Your task to perform on an android device: Open display settings Image 0: 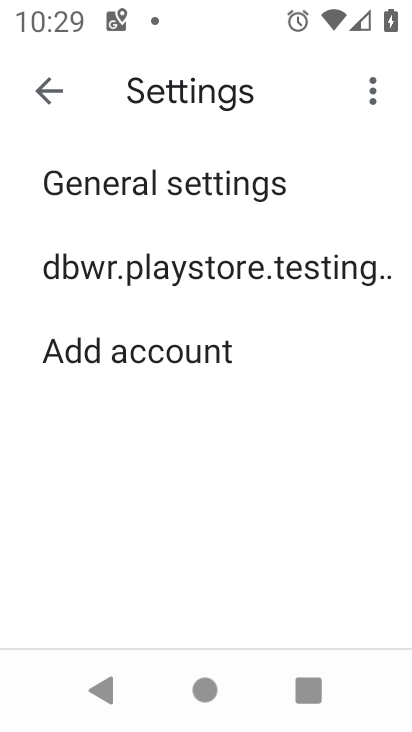
Step 0: press home button
Your task to perform on an android device: Open display settings Image 1: 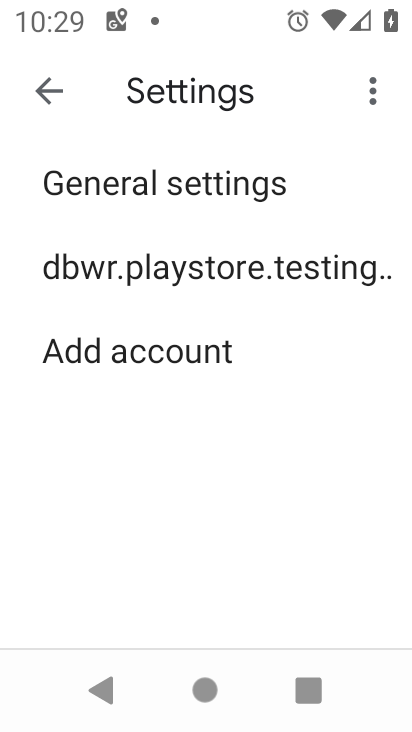
Step 1: press home button
Your task to perform on an android device: Open display settings Image 2: 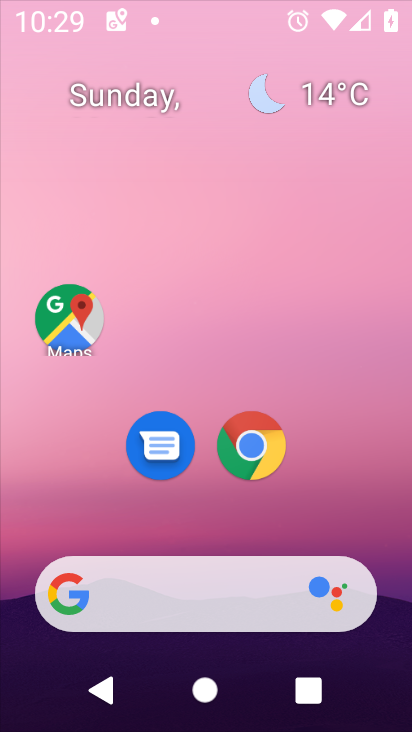
Step 2: drag from (187, 546) to (206, 2)
Your task to perform on an android device: Open display settings Image 3: 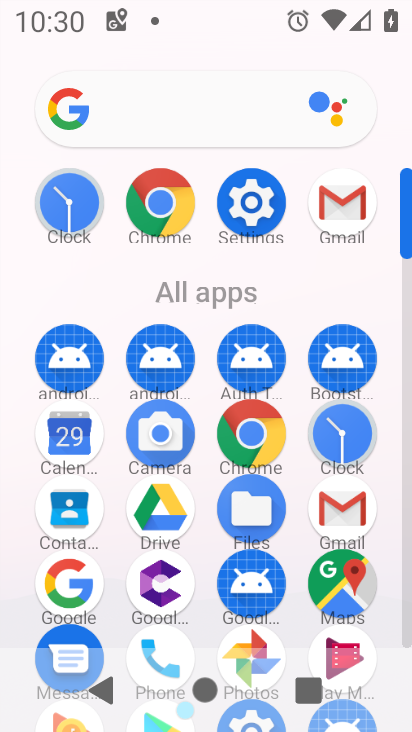
Step 3: click (264, 174)
Your task to perform on an android device: Open display settings Image 4: 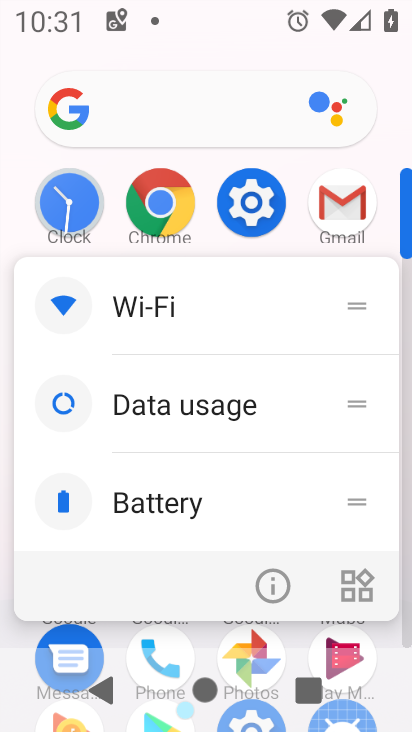
Step 4: click (277, 593)
Your task to perform on an android device: Open display settings Image 5: 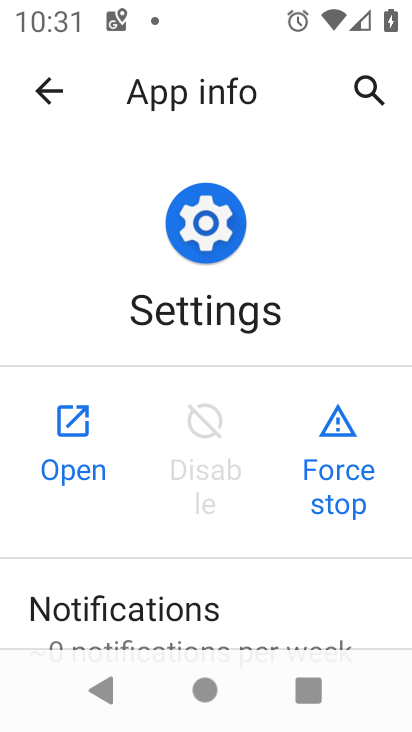
Step 5: click (70, 446)
Your task to perform on an android device: Open display settings Image 6: 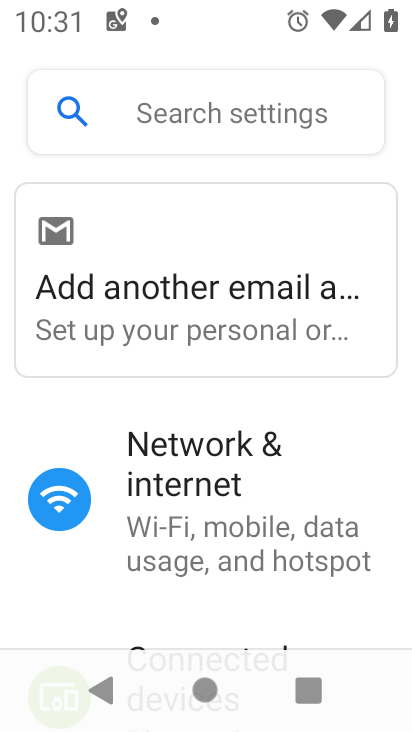
Step 6: drag from (222, 605) to (352, 37)
Your task to perform on an android device: Open display settings Image 7: 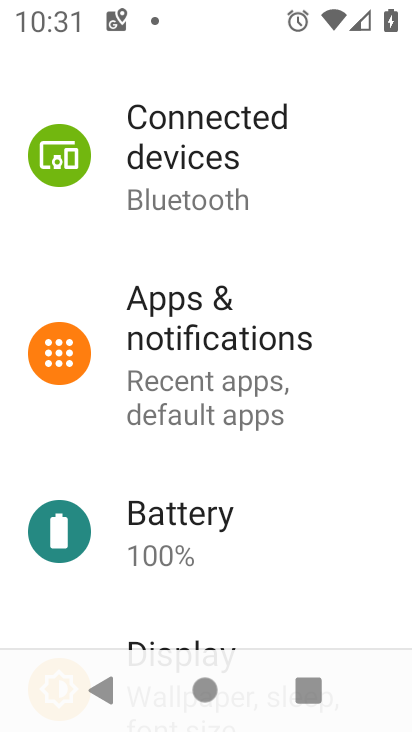
Step 7: drag from (169, 521) to (261, 202)
Your task to perform on an android device: Open display settings Image 8: 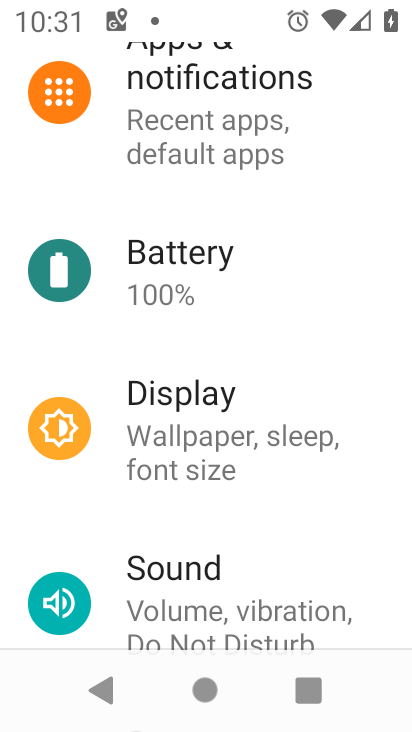
Step 8: click (157, 424)
Your task to perform on an android device: Open display settings Image 9: 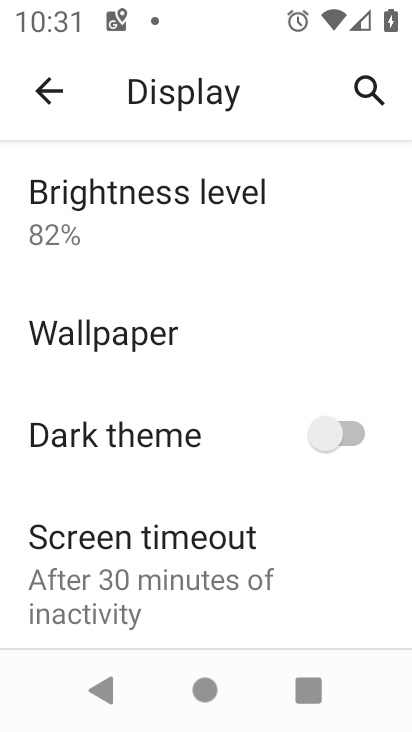
Step 9: task complete